Your task to perform on an android device: search for starred emails in the gmail app Image 0: 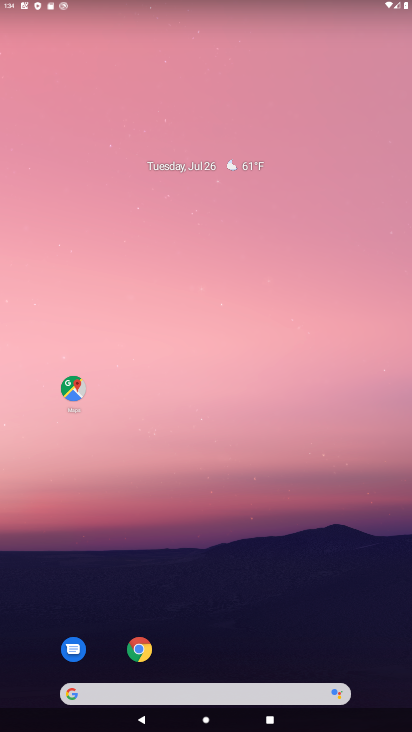
Step 0: drag from (217, 661) to (289, 55)
Your task to perform on an android device: search for starred emails in the gmail app Image 1: 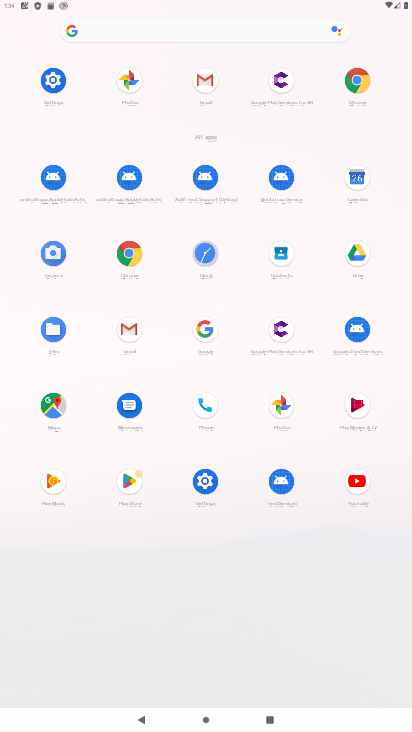
Step 1: click (207, 82)
Your task to perform on an android device: search for starred emails in the gmail app Image 2: 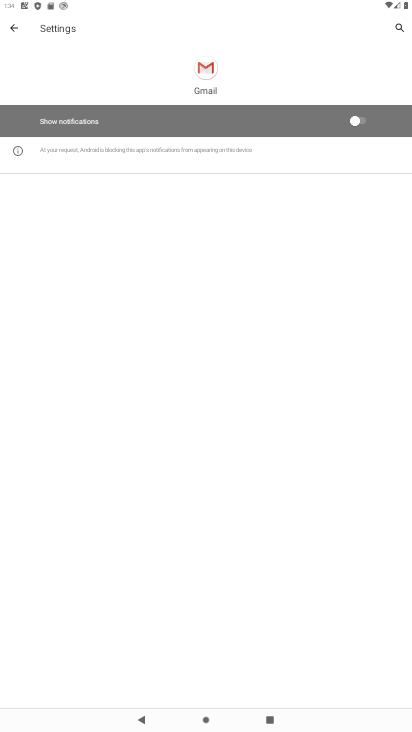
Step 2: click (16, 28)
Your task to perform on an android device: search for starred emails in the gmail app Image 3: 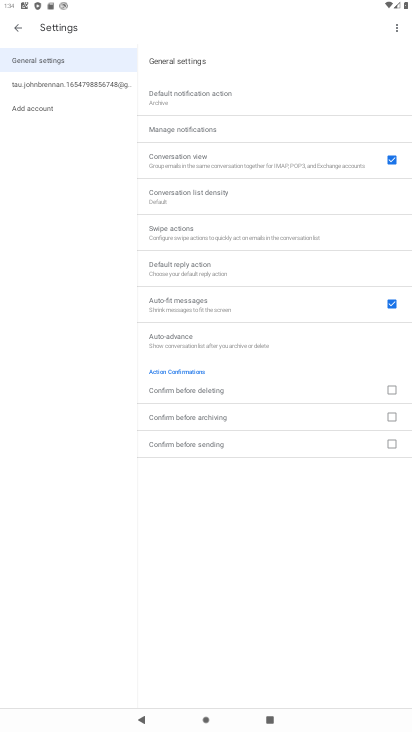
Step 3: click (62, 80)
Your task to perform on an android device: search for starred emails in the gmail app Image 4: 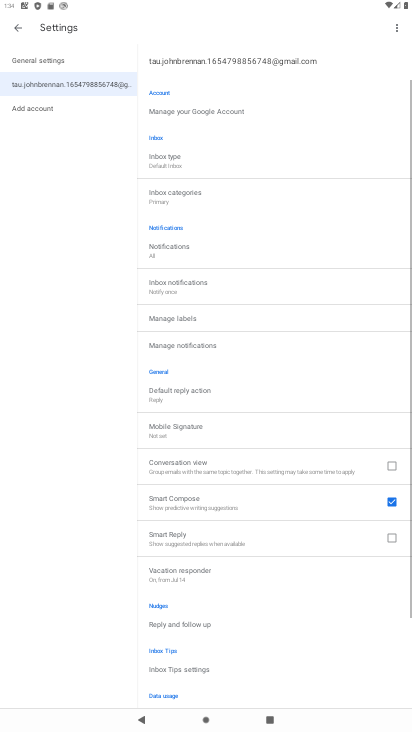
Step 4: click (16, 27)
Your task to perform on an android device: search for starred emails in the gmail app Image 5: 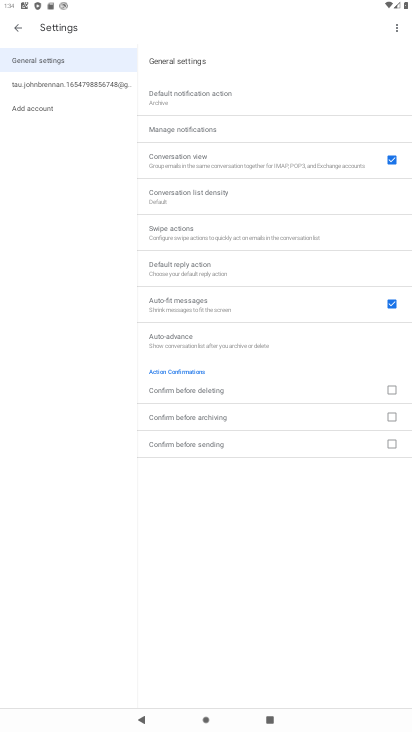
Step 5: click (16, 30)
Your task to perform on an android device: search for starred emails in the gmail app Image 6: 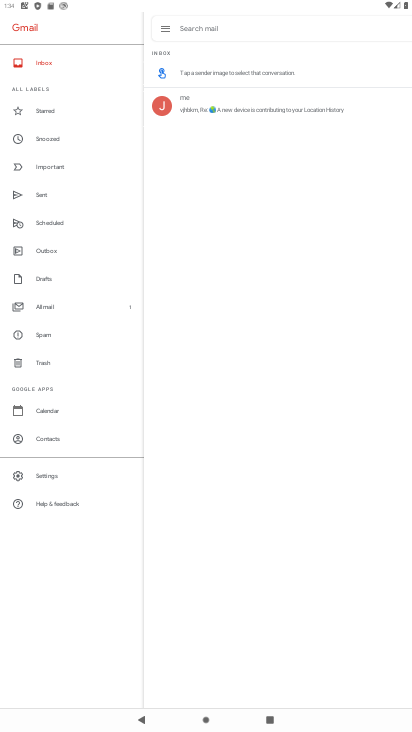
Step 6: click (56, 136)
Your task to perform on an android device: search for starred emails in the gmail app Image 7: 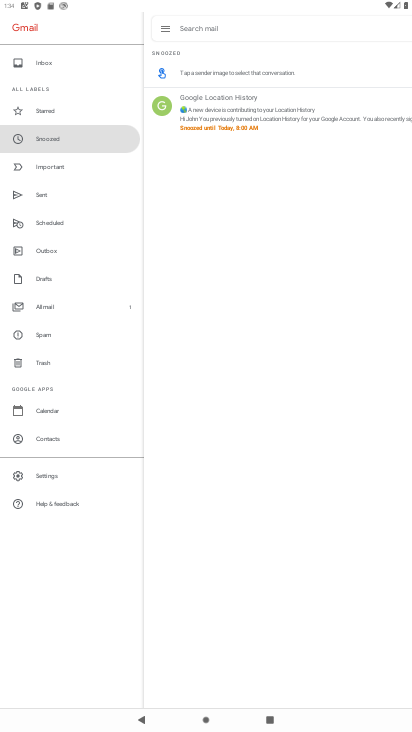
Step 7: click (41, 109)
Your task to perform on an android device: search for starred emails in the gmail app Image 8: 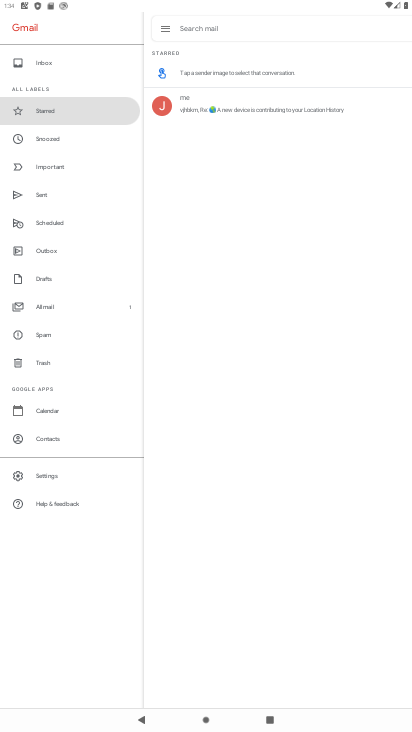
Step 8: task complete